Your task to perform on an android device: Open Chrome and go to the settings page Image 0: 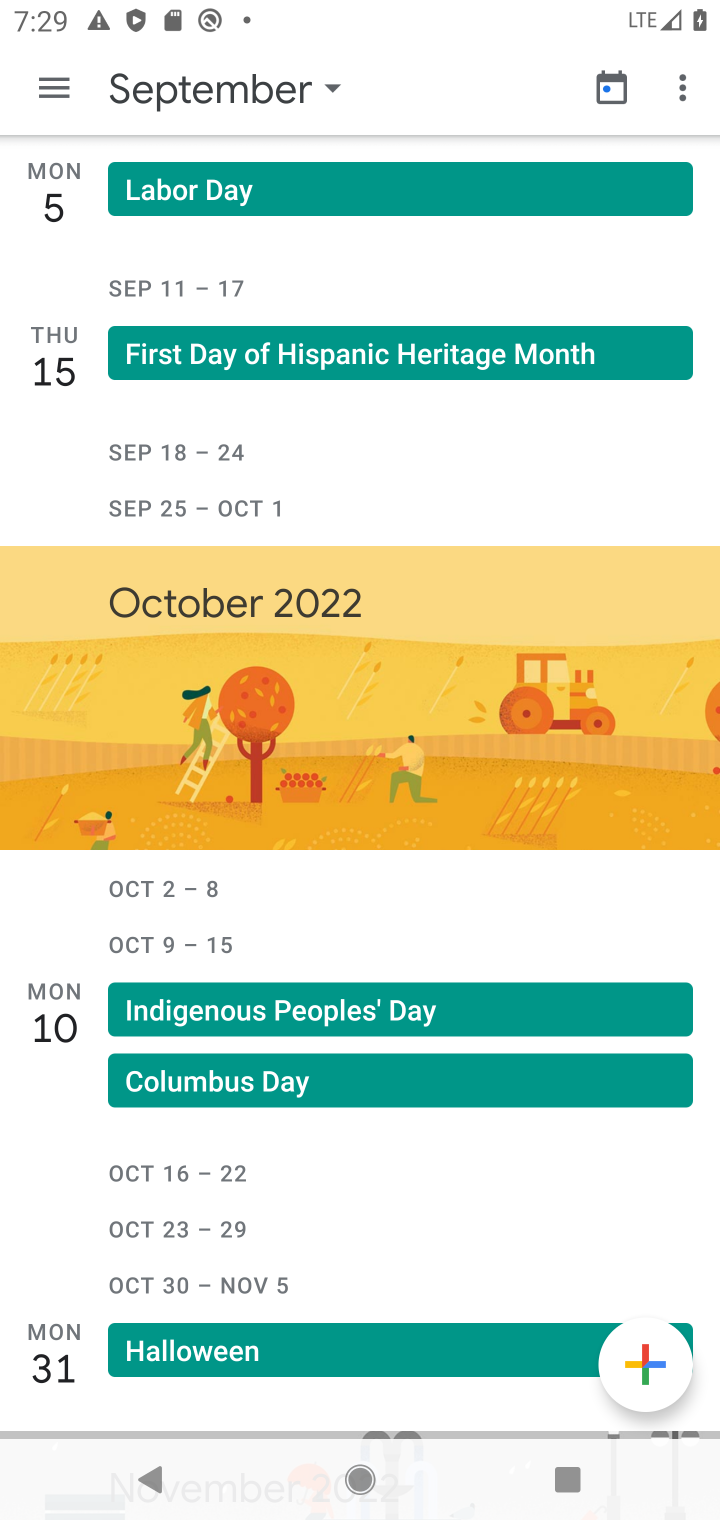
Step 0: press home button
Your task to perform on an android device: Open Chrome and go to the settings page Image 1: 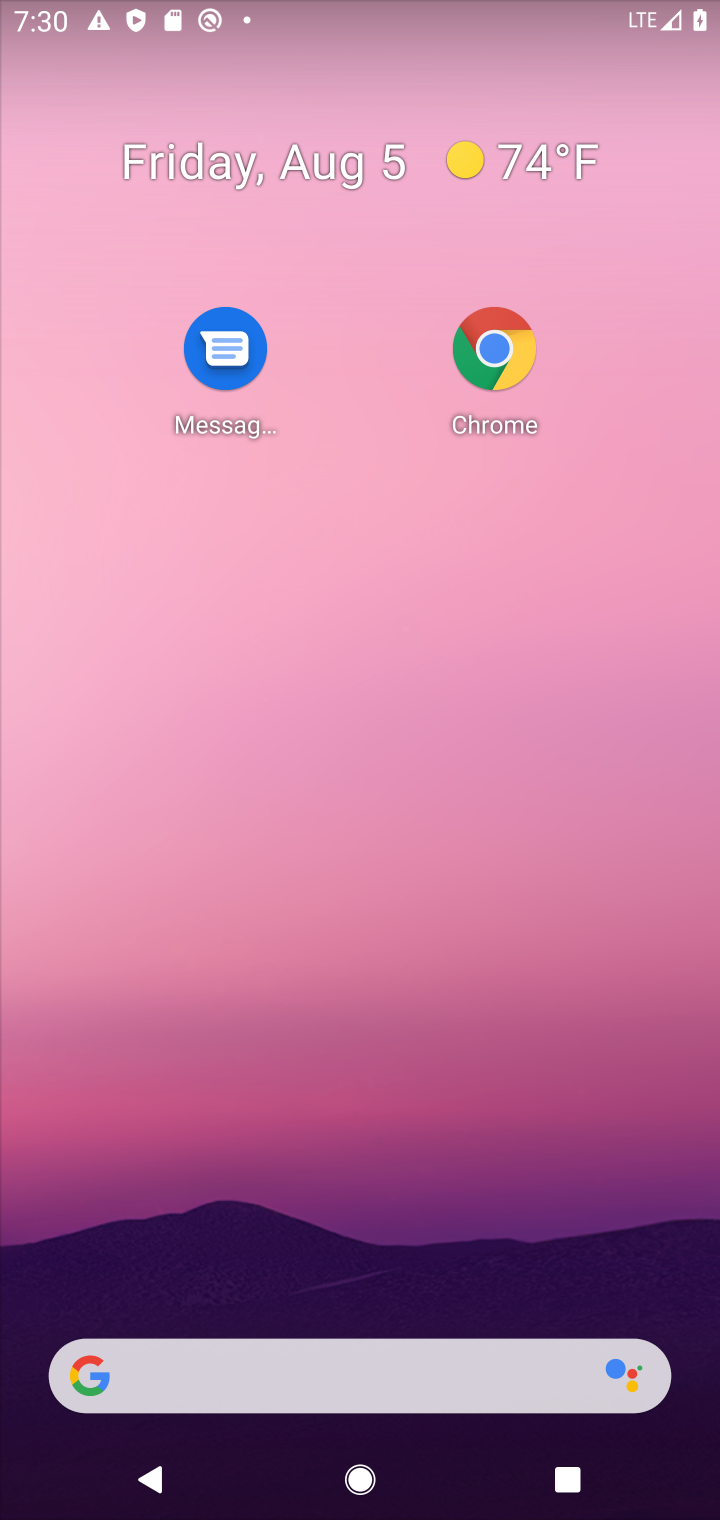
Step 1: drag from (440, 1403) to (423, 553)
Your task to perform on an android device: Open Chrome and go to the settings page Image 2: 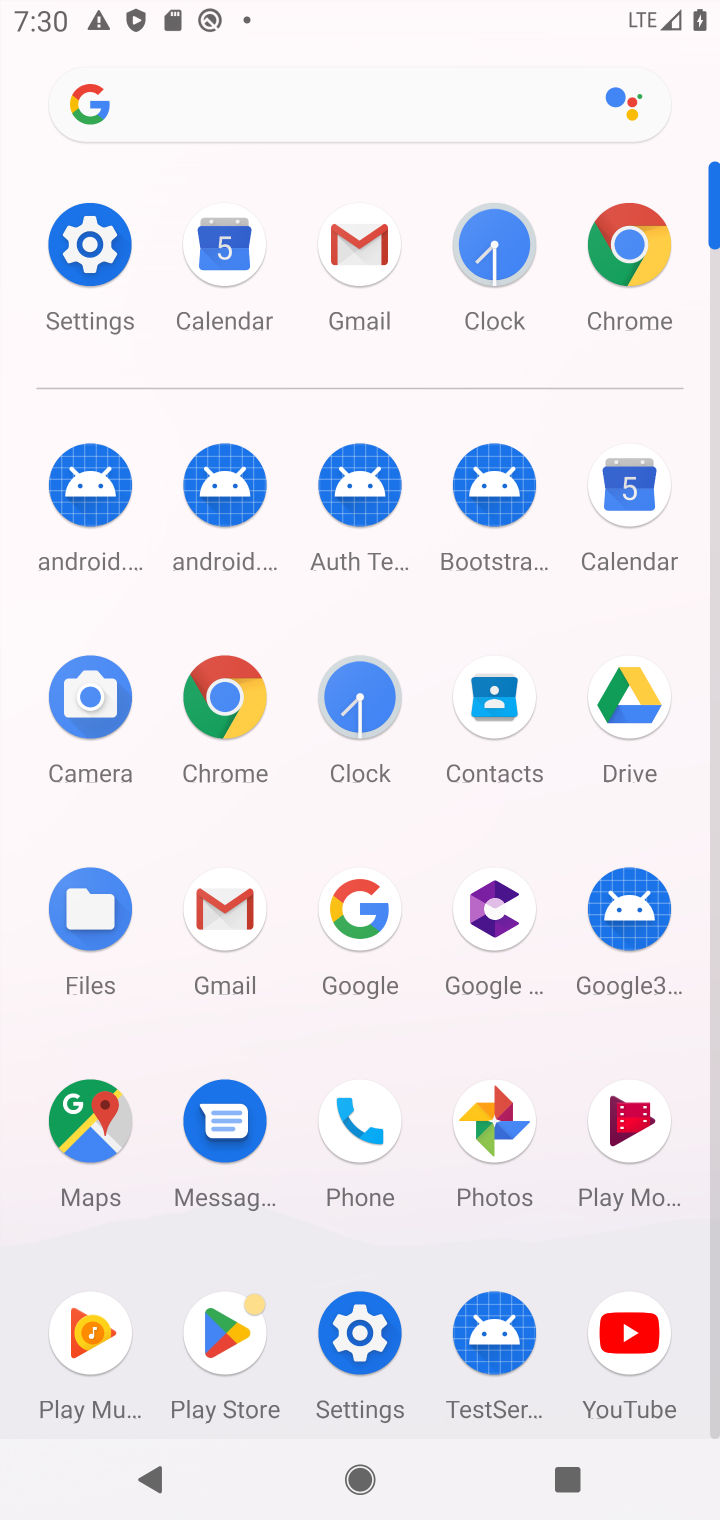
Step 2: click (587, 249)
Your task to perform on an android device: Open Chrome and go to the settings page Image 3: 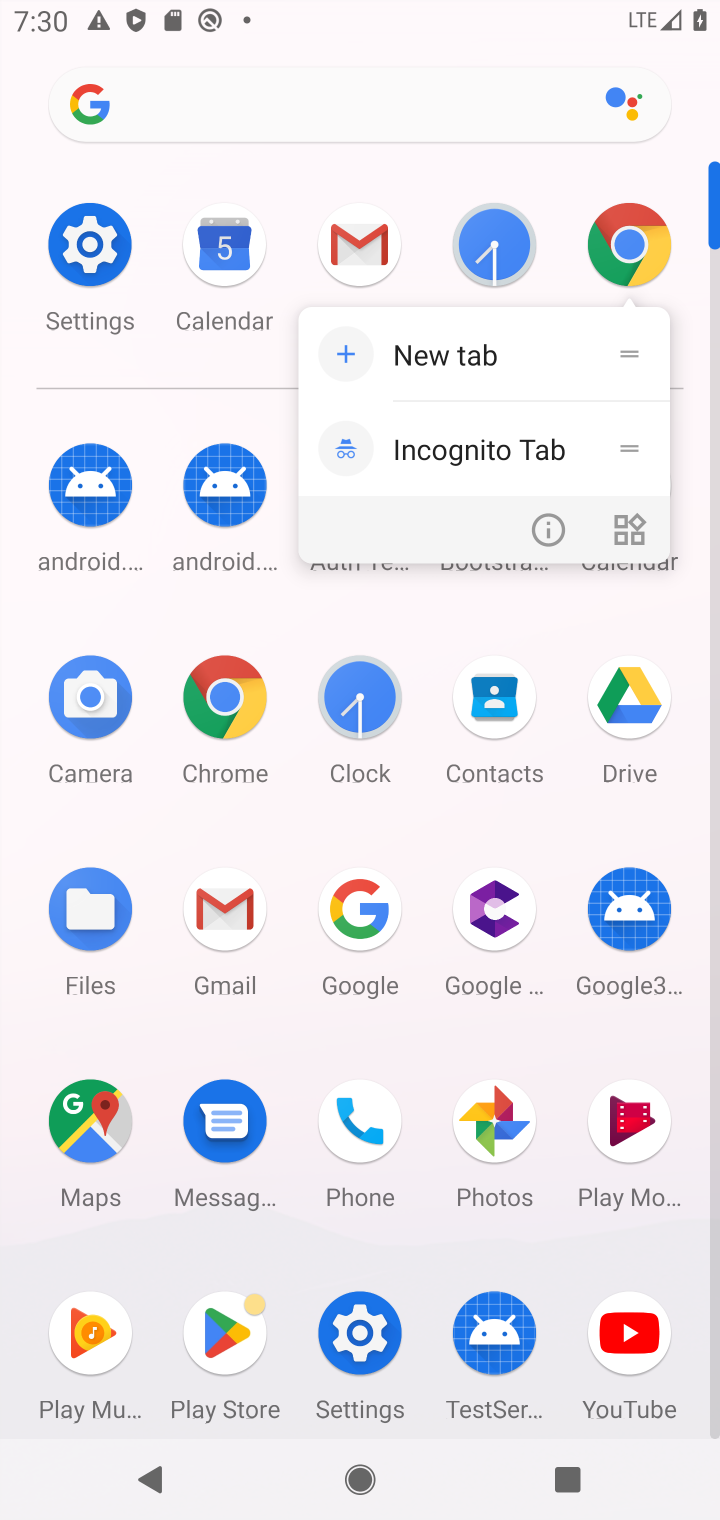
Step 3: click (613, 255)
Your task to perform on an android device: Open Chrome and go to the settings page Image 4: 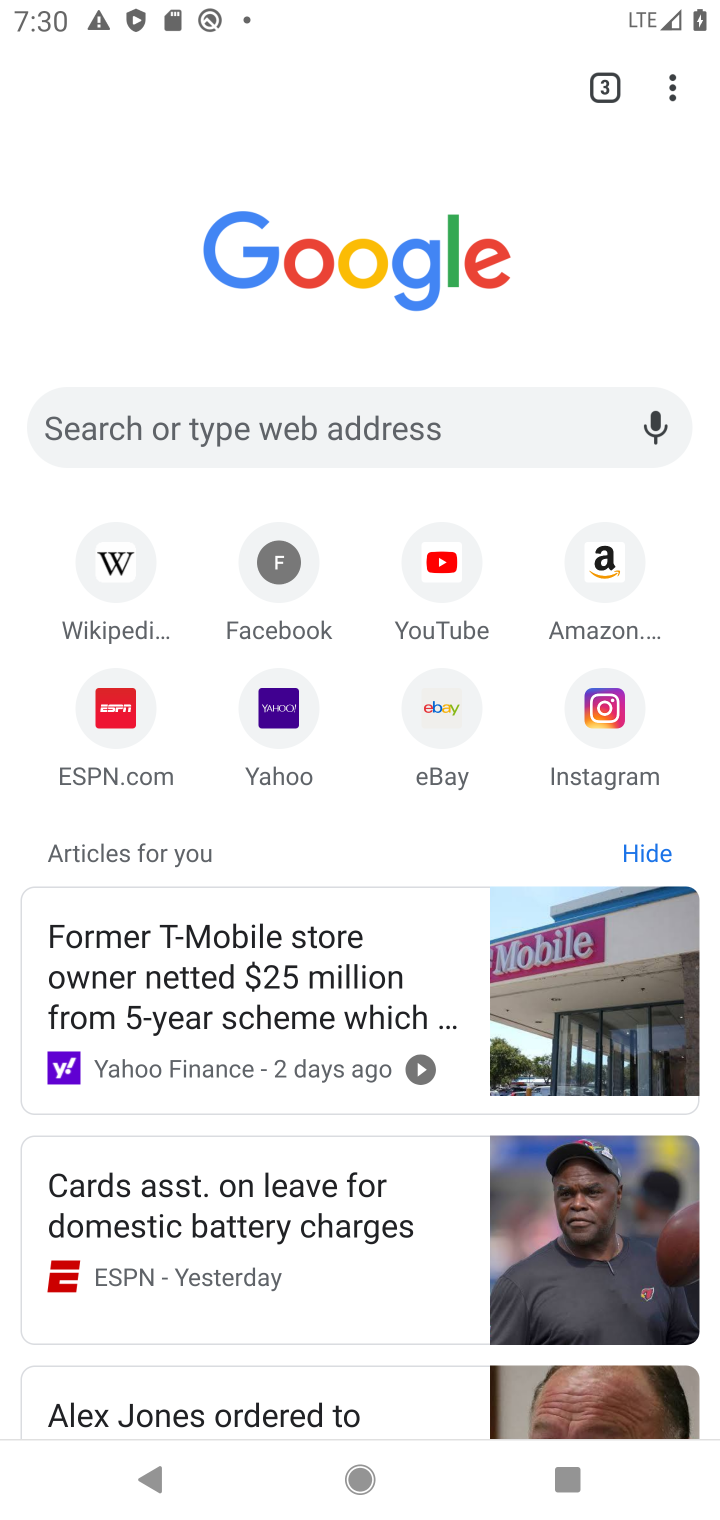
Step 4: click (678, 94)
Your task to perform on an android device: Open Chrome and go to the settings page Image 5: 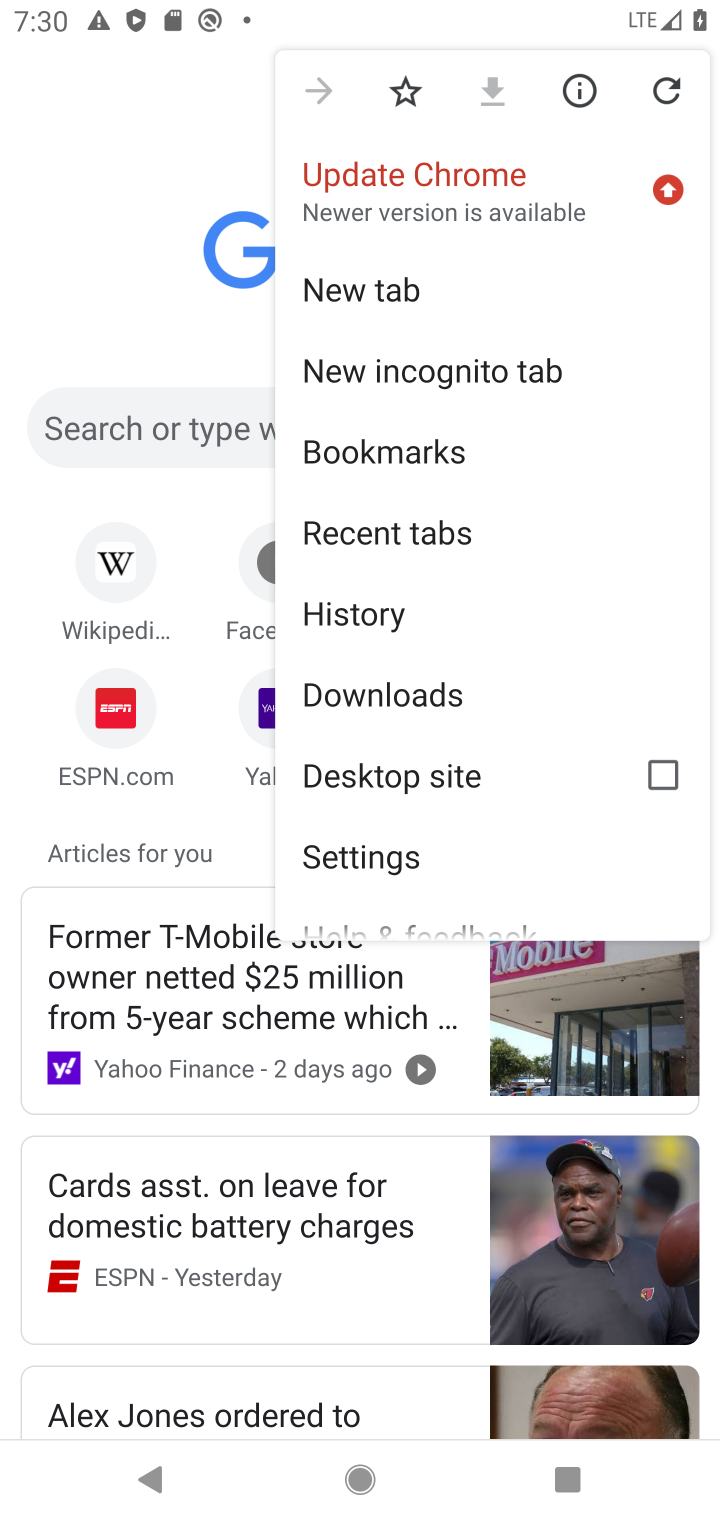
Step 5: click (360, 846)
Your task to perform on an android device: Open Chrome and go to the settings page Image 6: 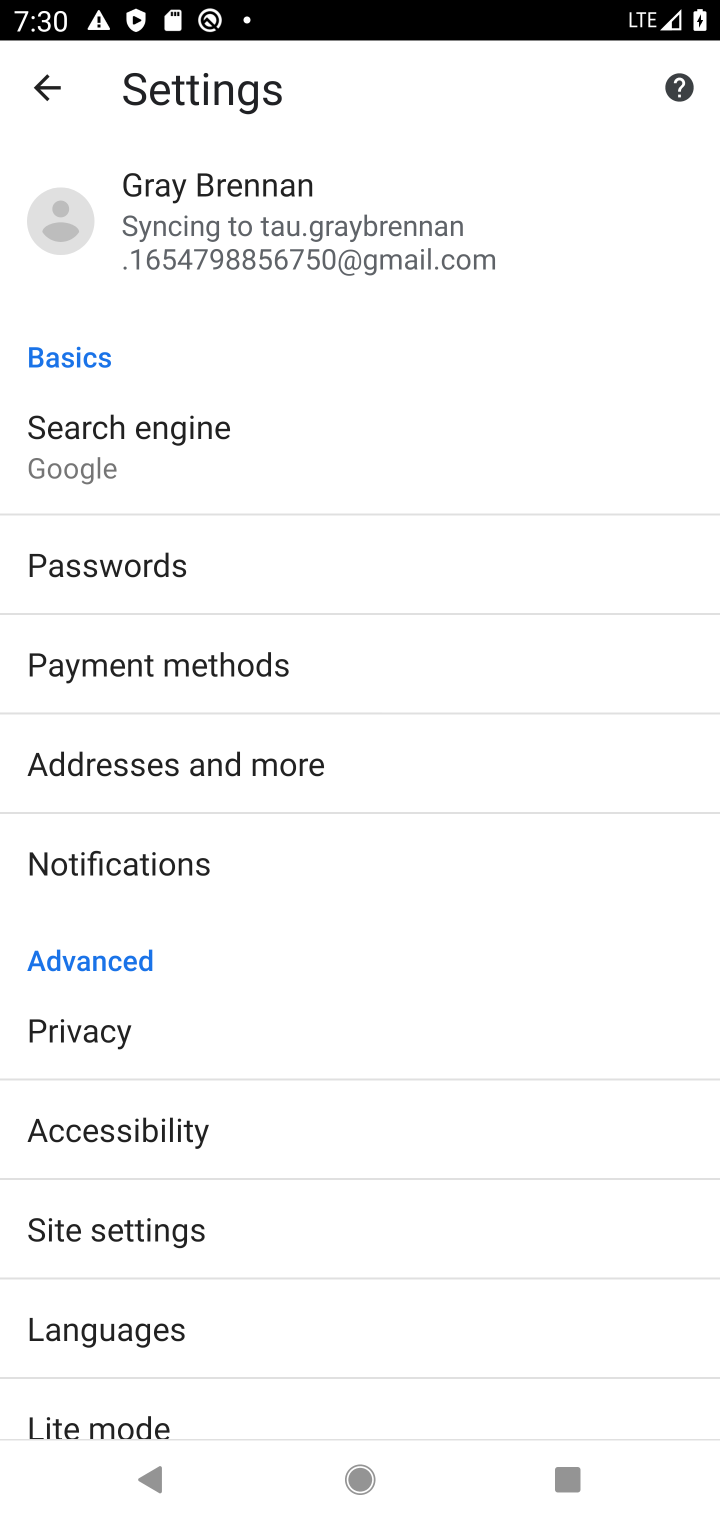
Step 6: task complete